Your task to perform on an android device: remove spam from my inbox in the gmail app Image 0: 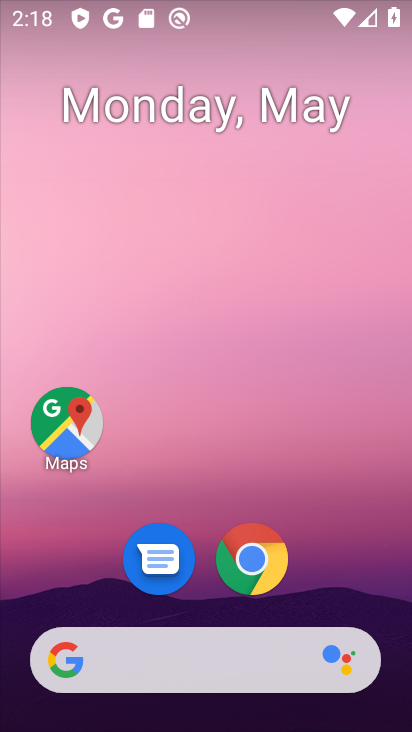
Step 0: drag from (342, 605) to (329, 41)
Your task to perform on an android device: remove spam from my inbox in the gmail app Image 1: 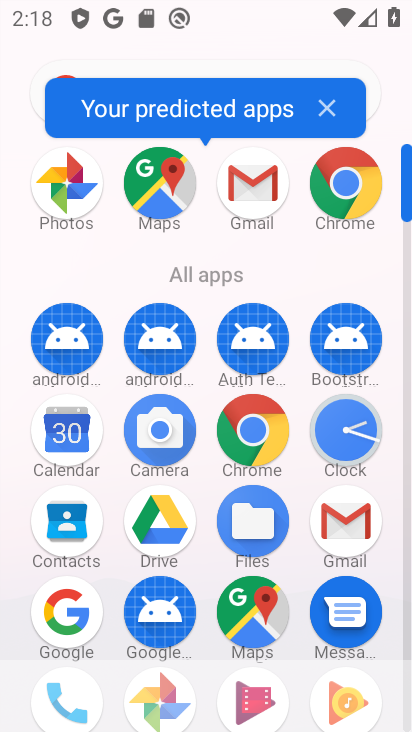
Step 1: click (337, 524)
Your task to perform on an android device: remove spam from my inbox in the gmail app Image 2: 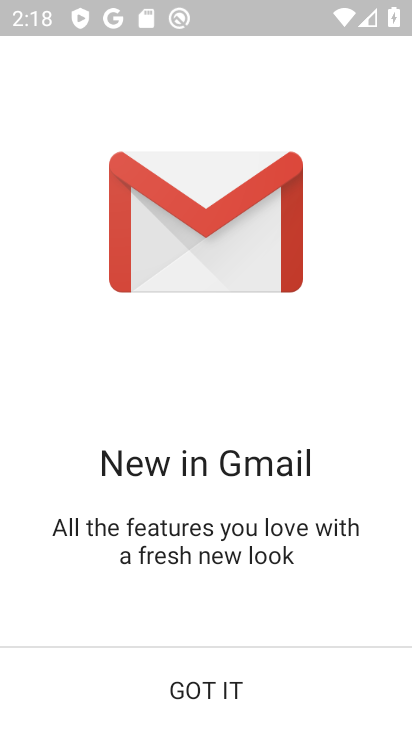
Step 2: click (253, 671)
Your task to perform on an android device: remove spam from my inbox in the gmail app Image 3: 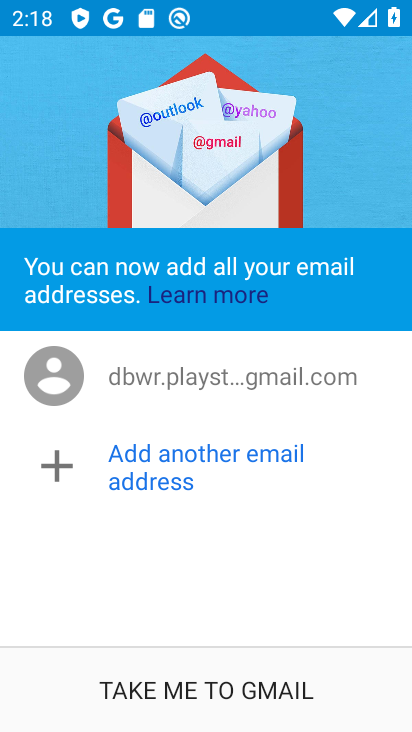
Step 3: click (244, 686)
Your task to perform on an android device: remove spam from my inbox in the gmail app Image 4: 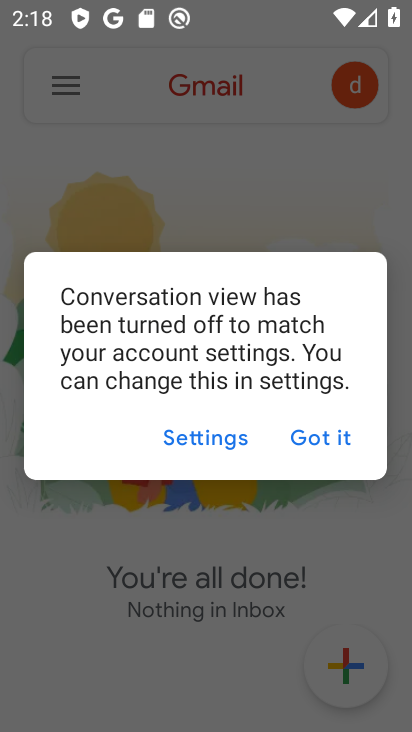
Step 4: click (292, 445)
Your task to perform on an android device: remove spam from my inbox in the gmail app Image 5: 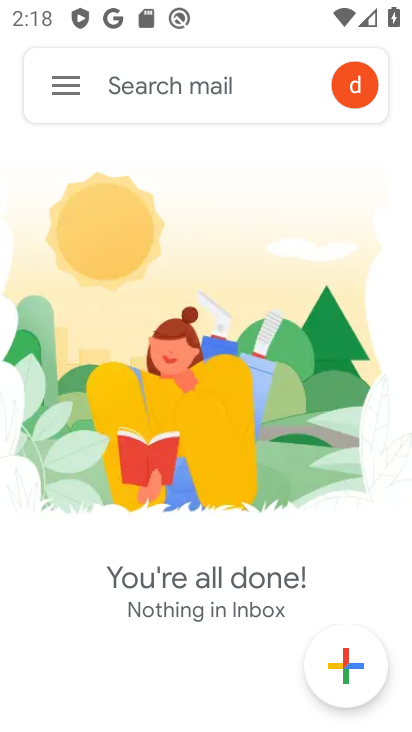
Step 5: click (62, 84)
Your task to perform on an android device: remove spam from my inbox in the gmail app Image 6: 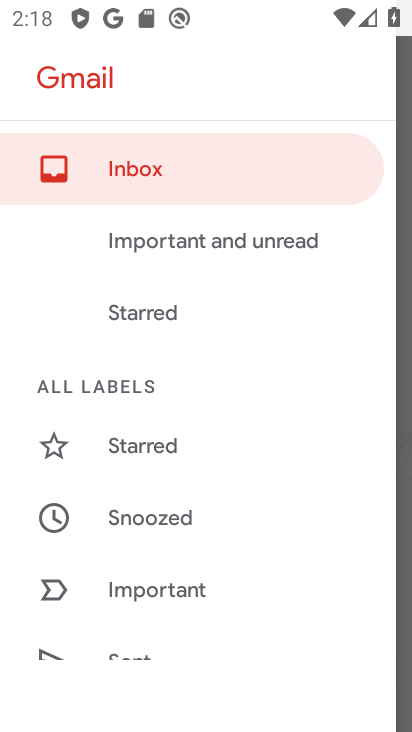
Step 6: drag from (161, 617) to (275, 217)
Your task to perform on an android device: remove spam from my inbox in the gmail app Image 7: 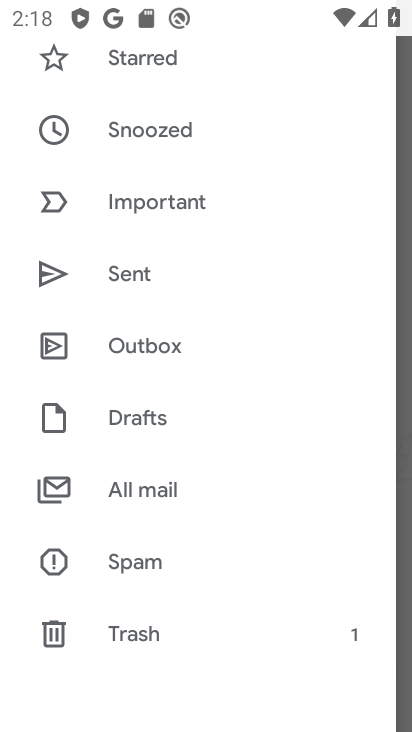
Step 7: click (159, 566)
Your task to perform on an android device: remove spam from my inbox in the gmail app Image 8: 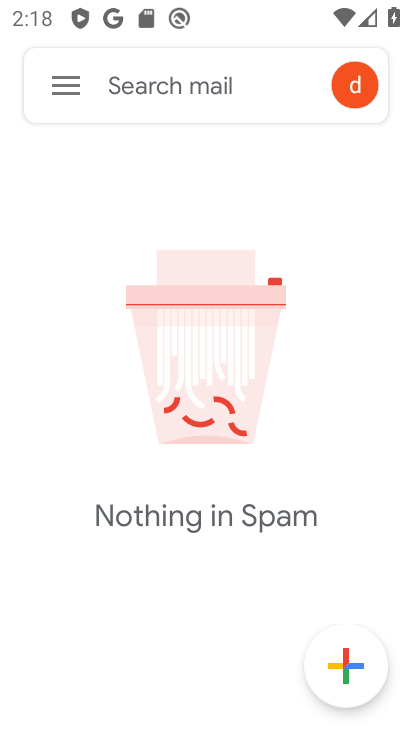
Step 8: task complete